Your task to perform on an android device: Search for pizza restaurants on Maps Image 0: 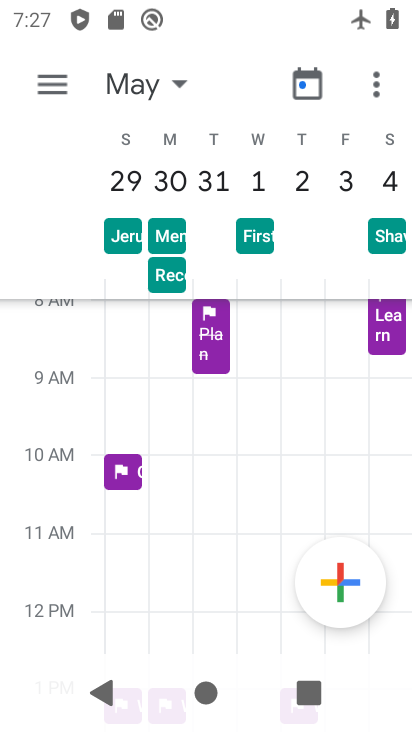
Step 0: press home button
Your task to perform on an android device: Search for pizza restaurants on Maps Image 1: 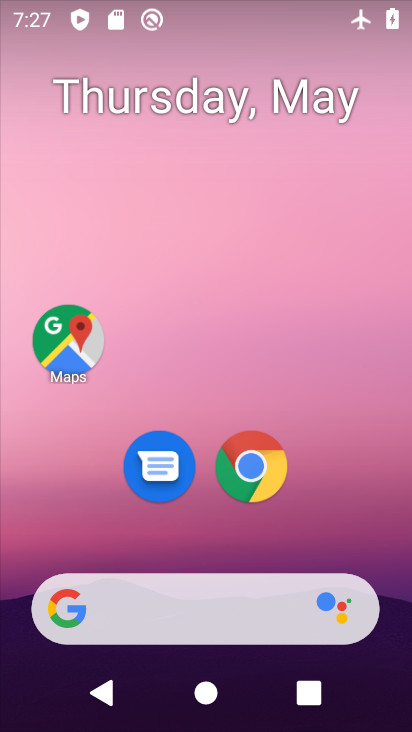
Step 1: click (59, 352)
Your task to perform on an android device: Search for pizza restaurants on Maps Image 2: 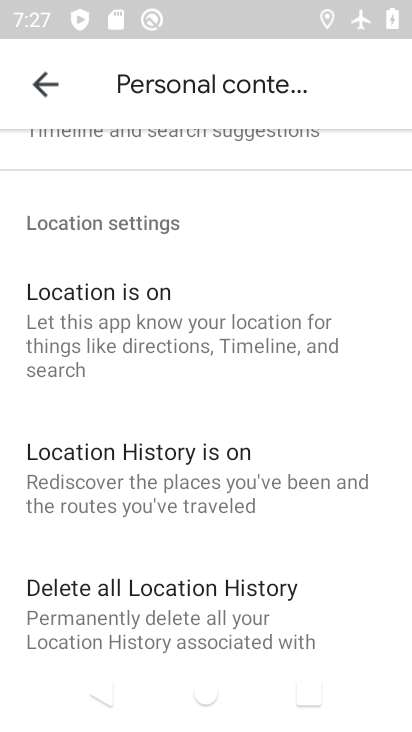
Step 2: click (38, 87)
Your task to perform on an android device: Search for pizza restaurants on Maps Image 3: 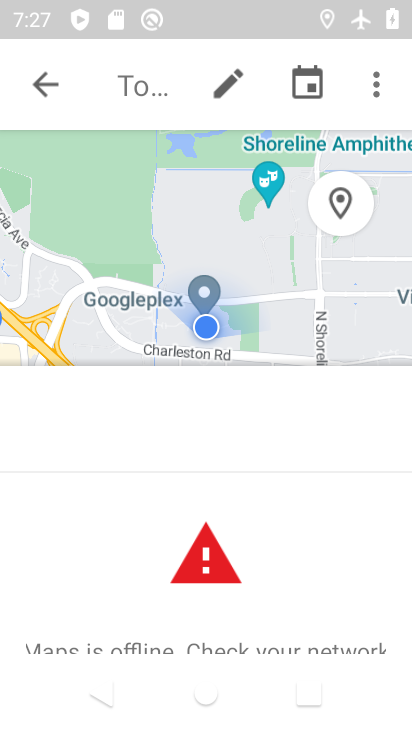
Step 3: click (44, 89)
Your task to perform on an android device: Search for pizza restaurants on Maps Image 4: 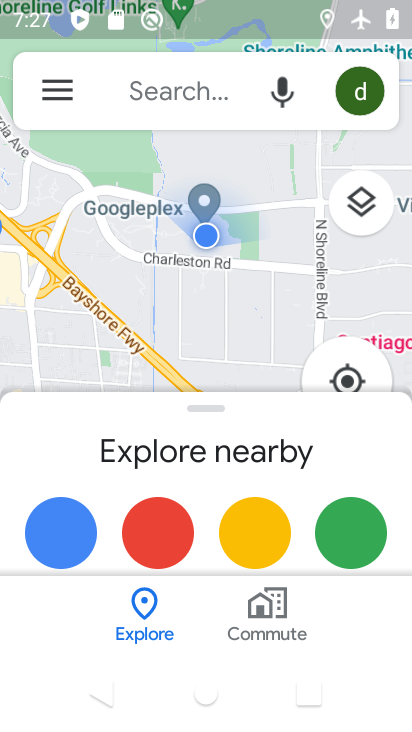
Step 4: click (134, 92)
Your task to perform on an android device: Search for pizza restaurants on Maps Image 5: 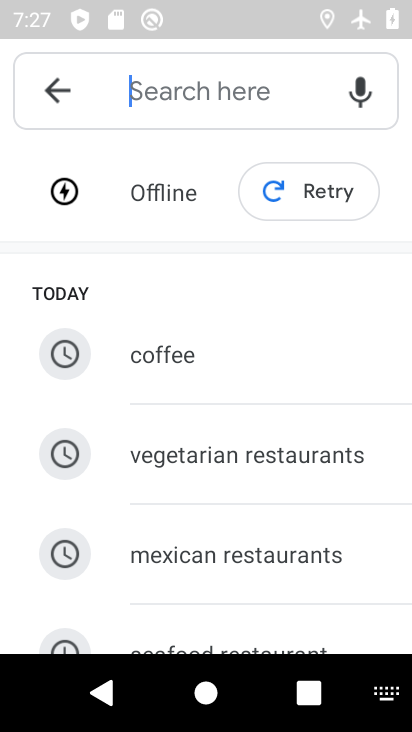
Step 5: type "pizza"
Your task to perform on an android device: Search for pizza restaurants on Maps Image 6: 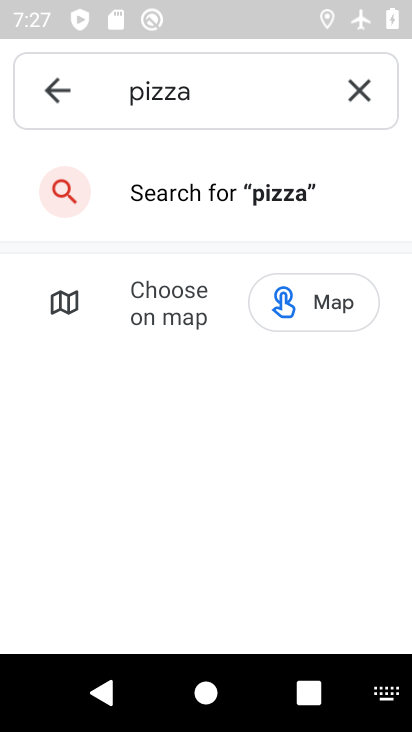
Step 6: click (286, 196)
Your task to perform on an android device: Search for pizza restaurants on Maps Image 7: 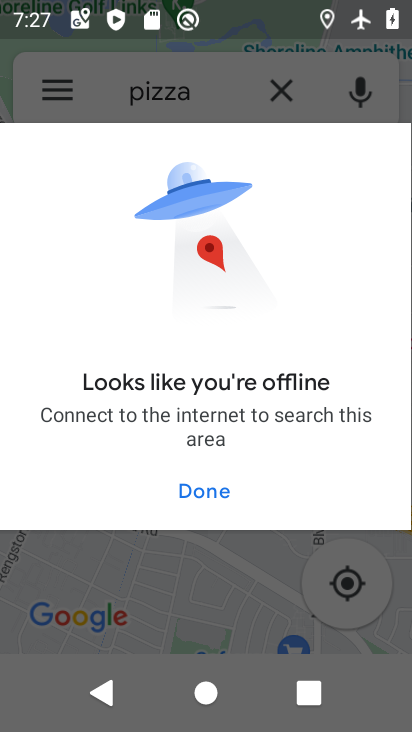
Step 7: task complete